Your task to perform on an android device: Open Yahoo.com Image 0: 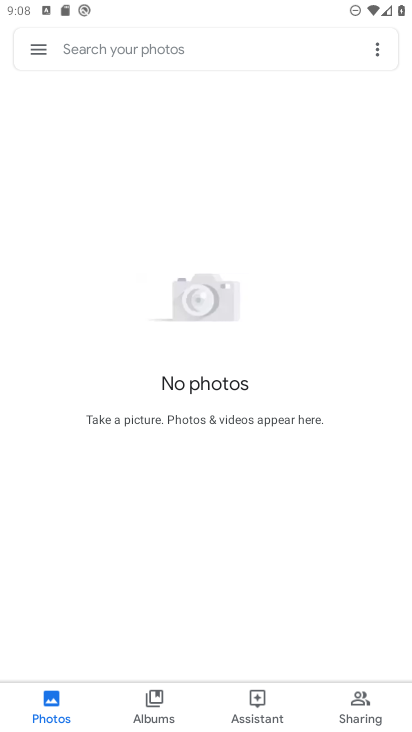
Step 0: press home button
Your task to perform on an android device: Open Yahoo.com Image 1: 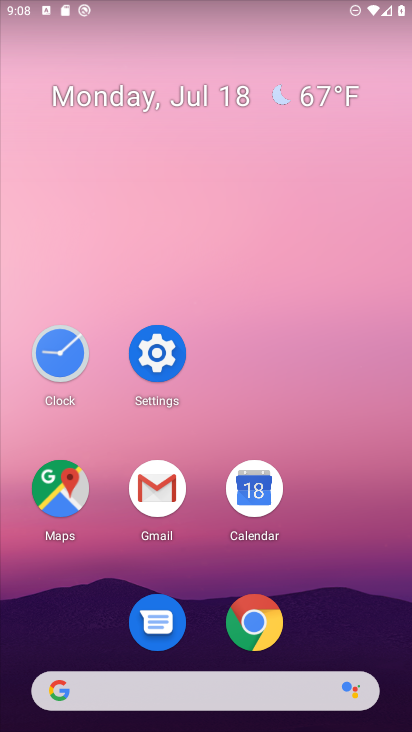
Step 1: click (253, 616)
Your task to perform on an android device: Open Yahoo.com Image 2: 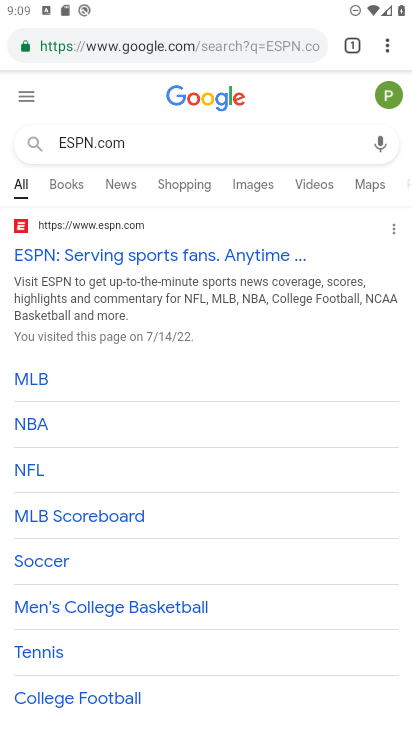
Step 2: click (301, 45)
Your task to perform on an android device: Open Yahoo.com Image 3: 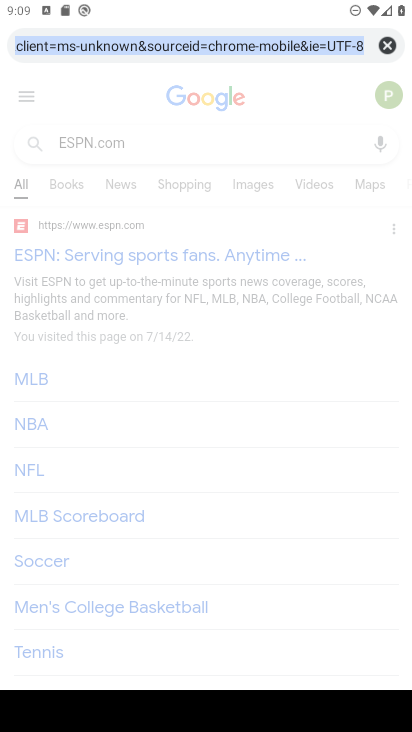
Step 3: click (384, 44)
Your task to perform on an android device: Open Yahoo.com Image 4: 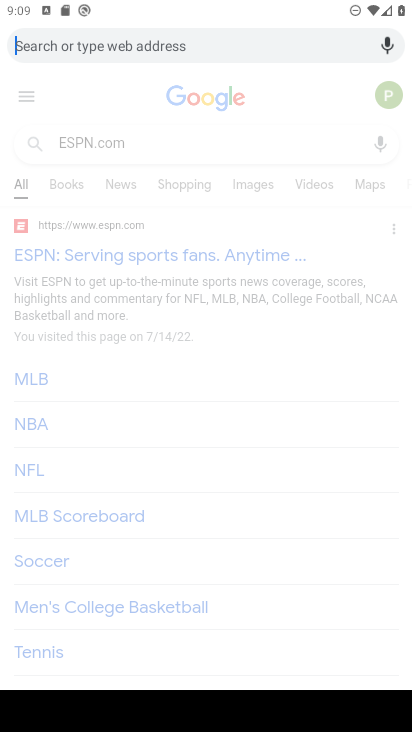
Step 4: type "Yahoo.com"
Your task to perform on an android device: Open Yahoo.com Image 5: 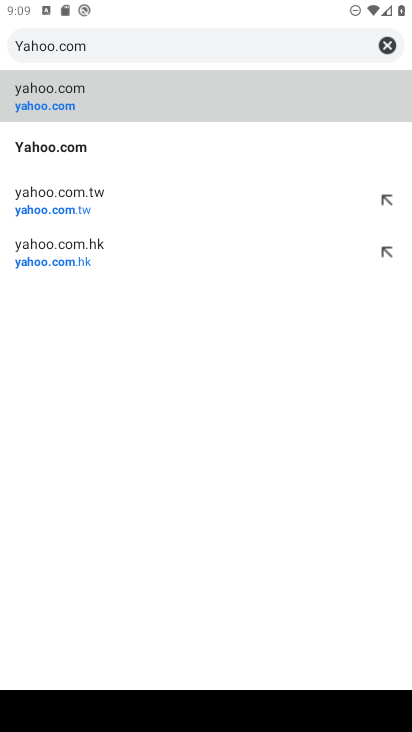
Step 5: click (45, 141)
Your task to perform on an android device: Open Yahoo.com Image 6: 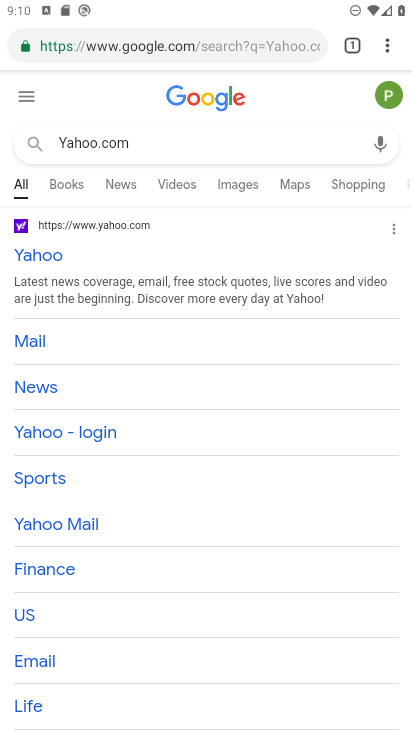
Step 6: task complete